Your task to perform on an android device: What is the speed of a train? Image 0: 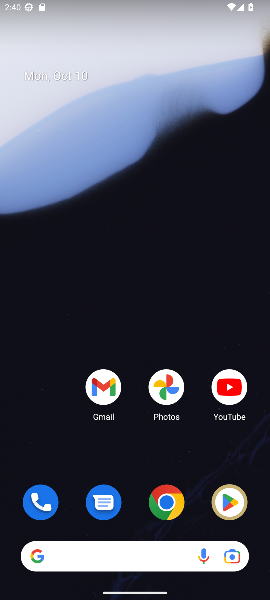
Step 0: click (171, 501)
Your task to perform on an android device: What is the speed of a train? Image 1: 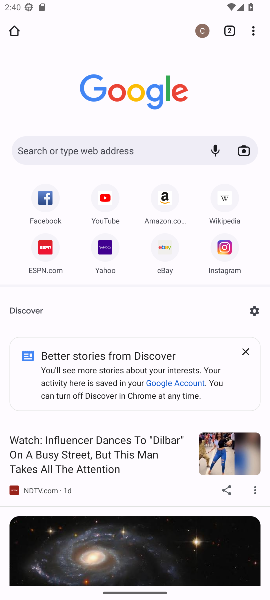
Step 1: click (87, 148)
Your task to perform on an android device: What is the speed of a train? Image 2: 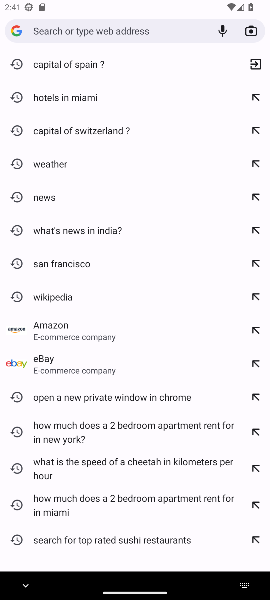
Step 2: type "what is the speed of a train ?"
Your task to perform on an android device: What is the speed of a train? Image 3: 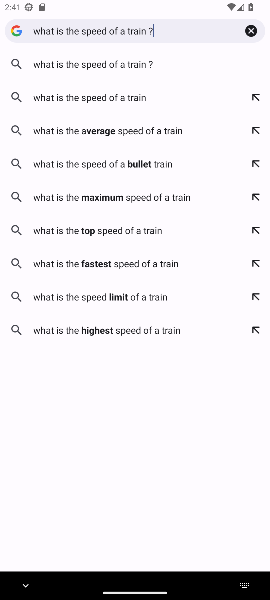
Step 3: click (152, 59)
Your task to perform on an android device: What is the speed of a train? Image 4: 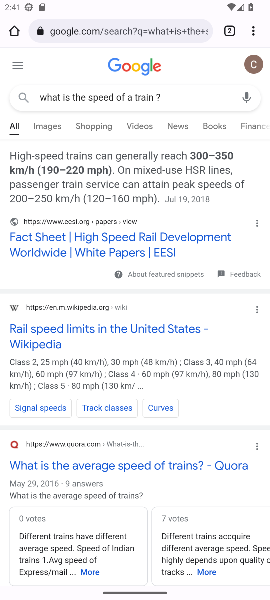
Step 4: task complete